Your task to perform on an android device: open app "Duolingo: language lessons" Image 0: 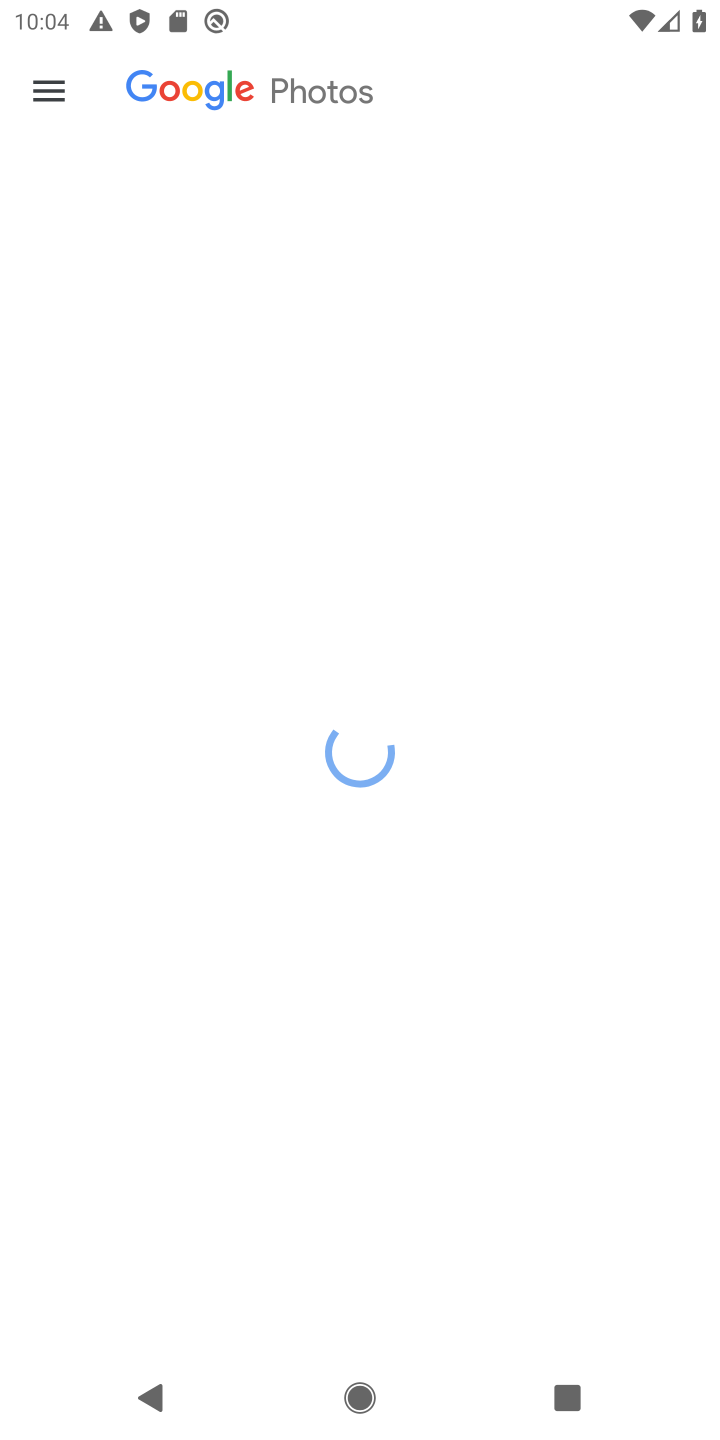
Step 0: press home button
Your task to perform on an android device: open app "Duolingo: language lessons" Image 1: 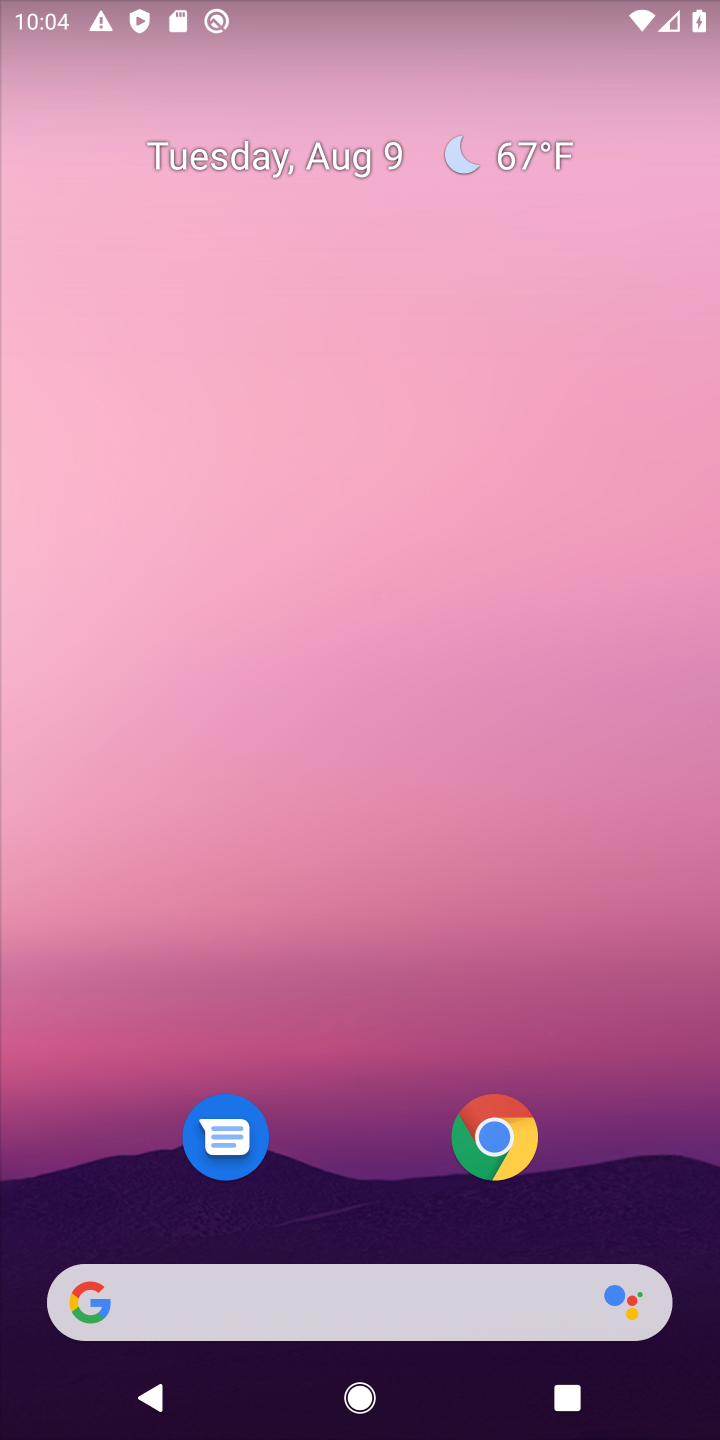
Step 1: drag from (667, 1124) to (479, 85)
Your task to perform on an android device: open app "Duolingo: language lessons" Image 2: 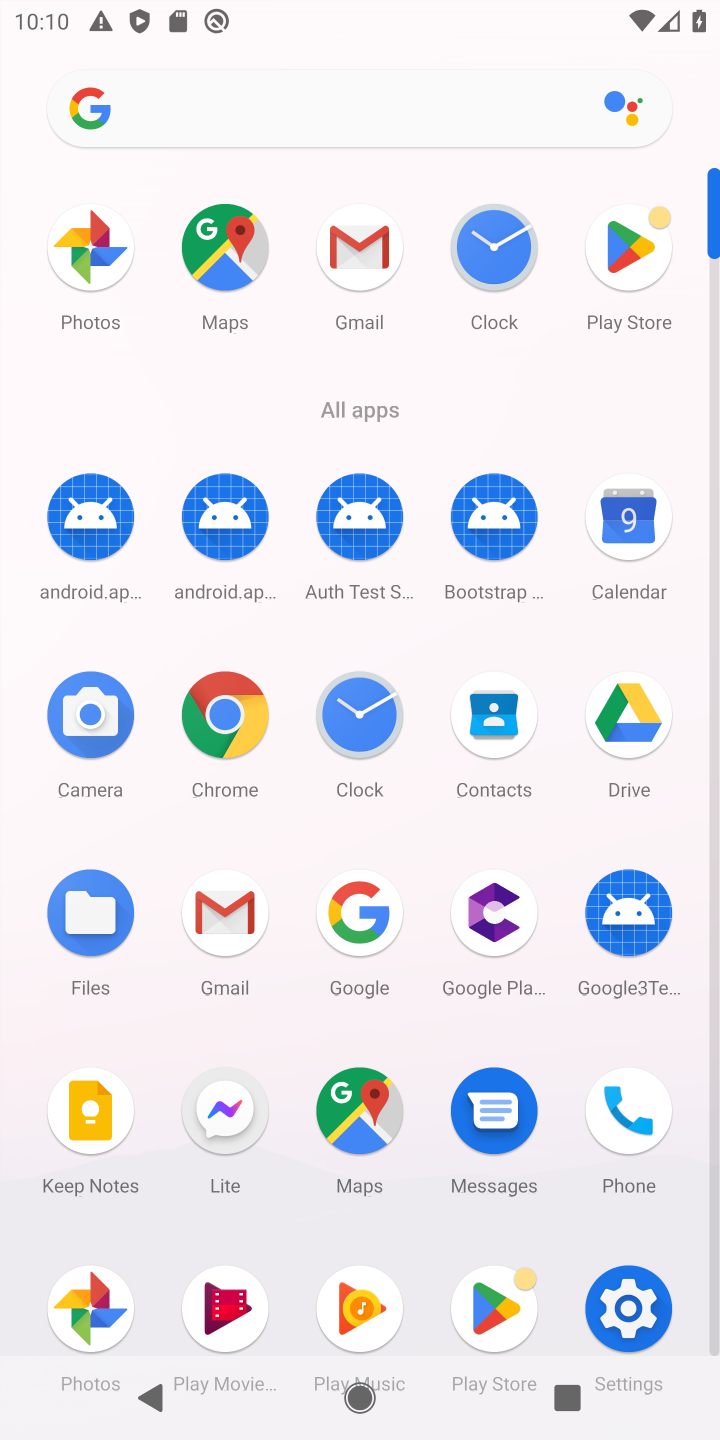
Step 2: click (612, 286)
Your task to perform on an android device: open app "Duolingo: language lessons" Image 3: 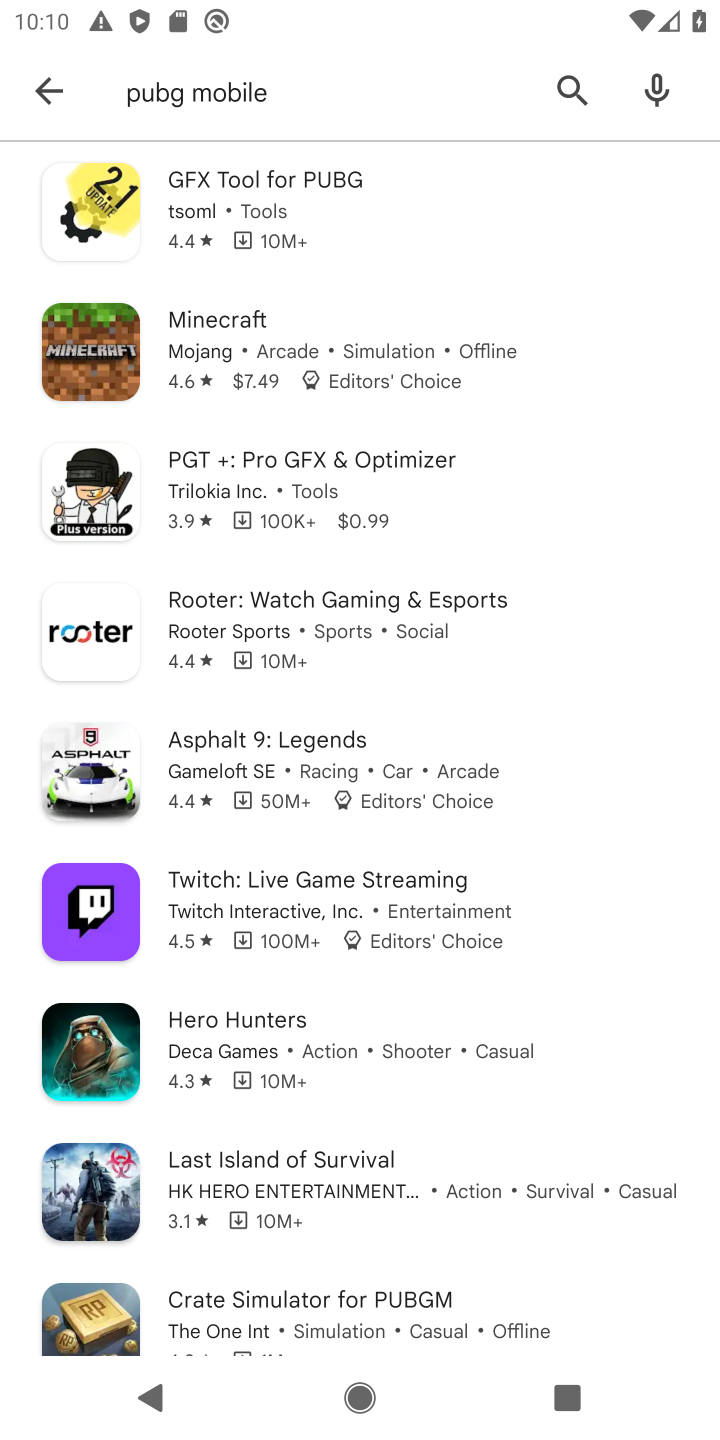
Step 3: press back button
Your task to perform on an android device: open app "Duolingo: language lessons" Image 4: 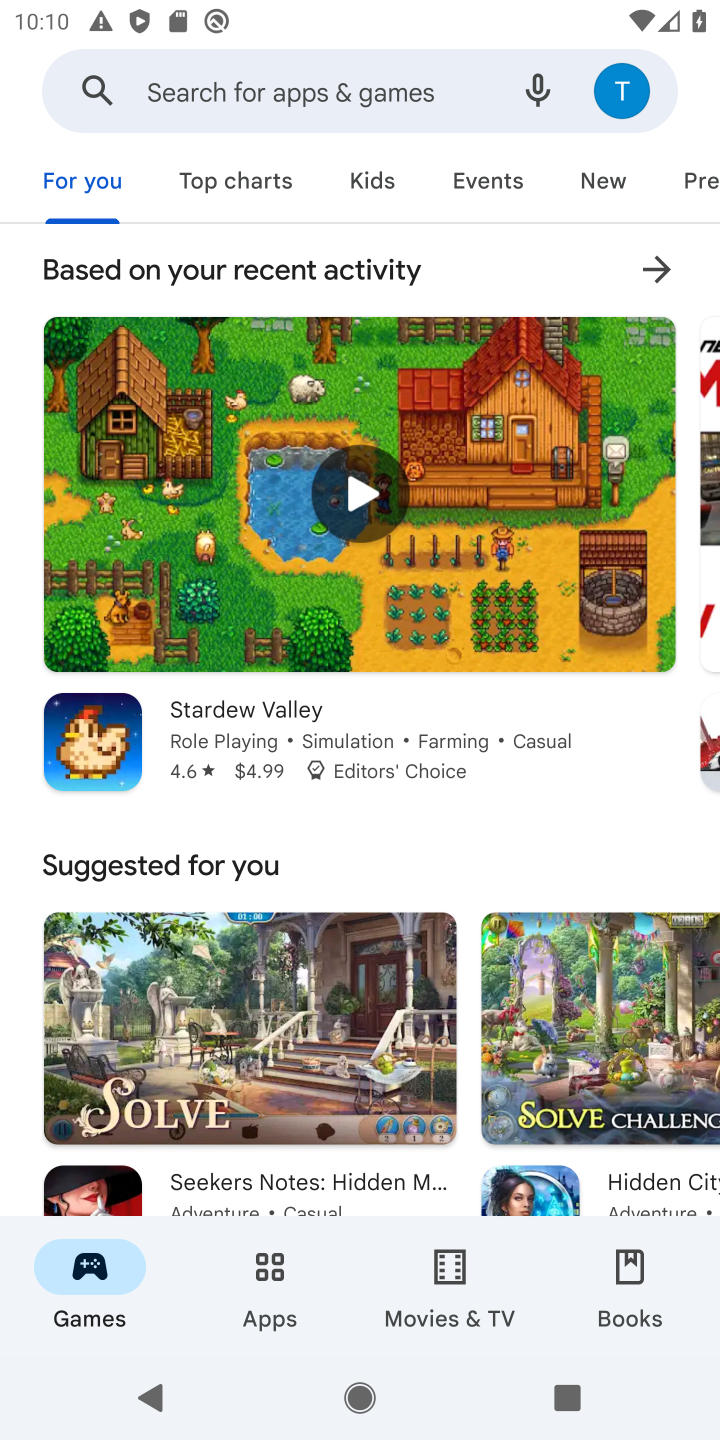
Step 4: click (236, 106)
Your task to perform on an android device: open app "Duolingo: language lessons" Image 5: 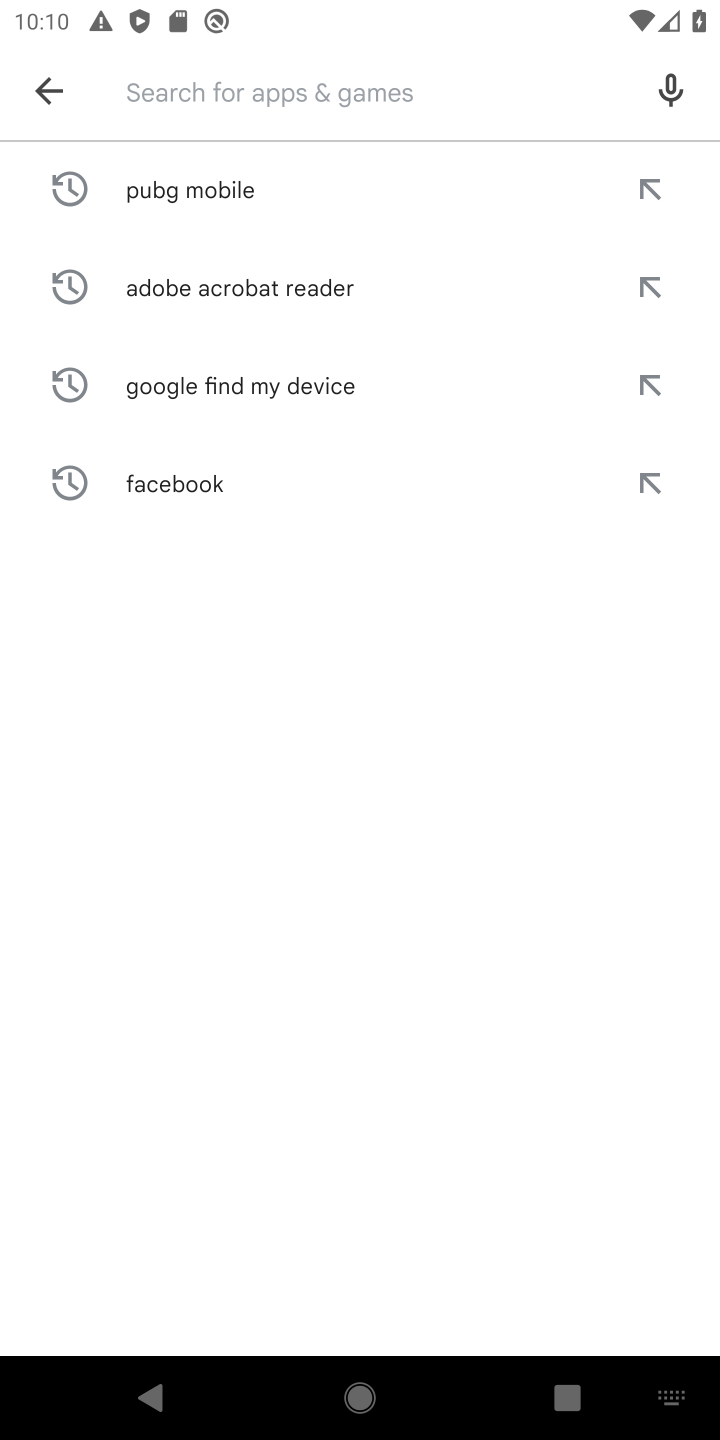
Step 5: type "Duolingo: language lessons"
Your task to perform on an android device: open app "Duolingo: language lessons" Image 6: 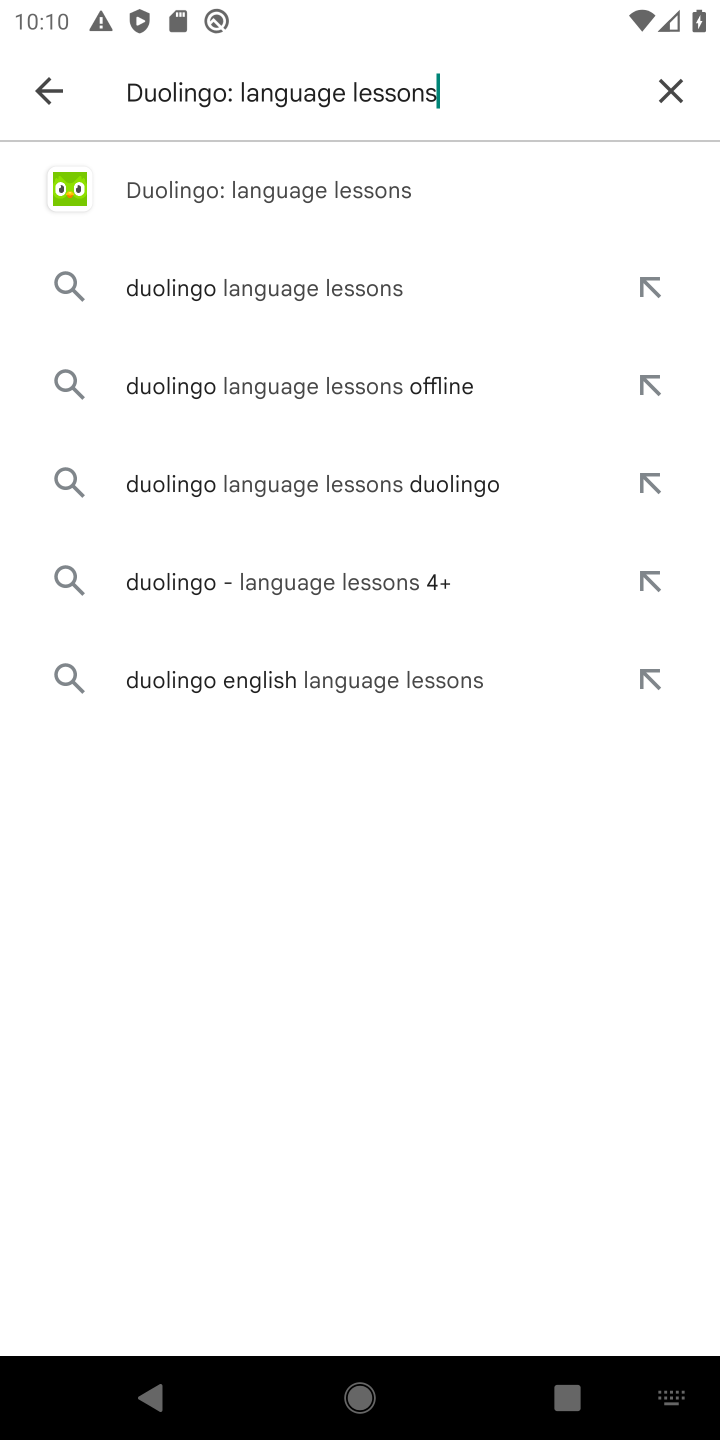
Step 6: click (178, 211)
Your task to perform on an android device: open app "Duolingo: language lessons" Image 7: 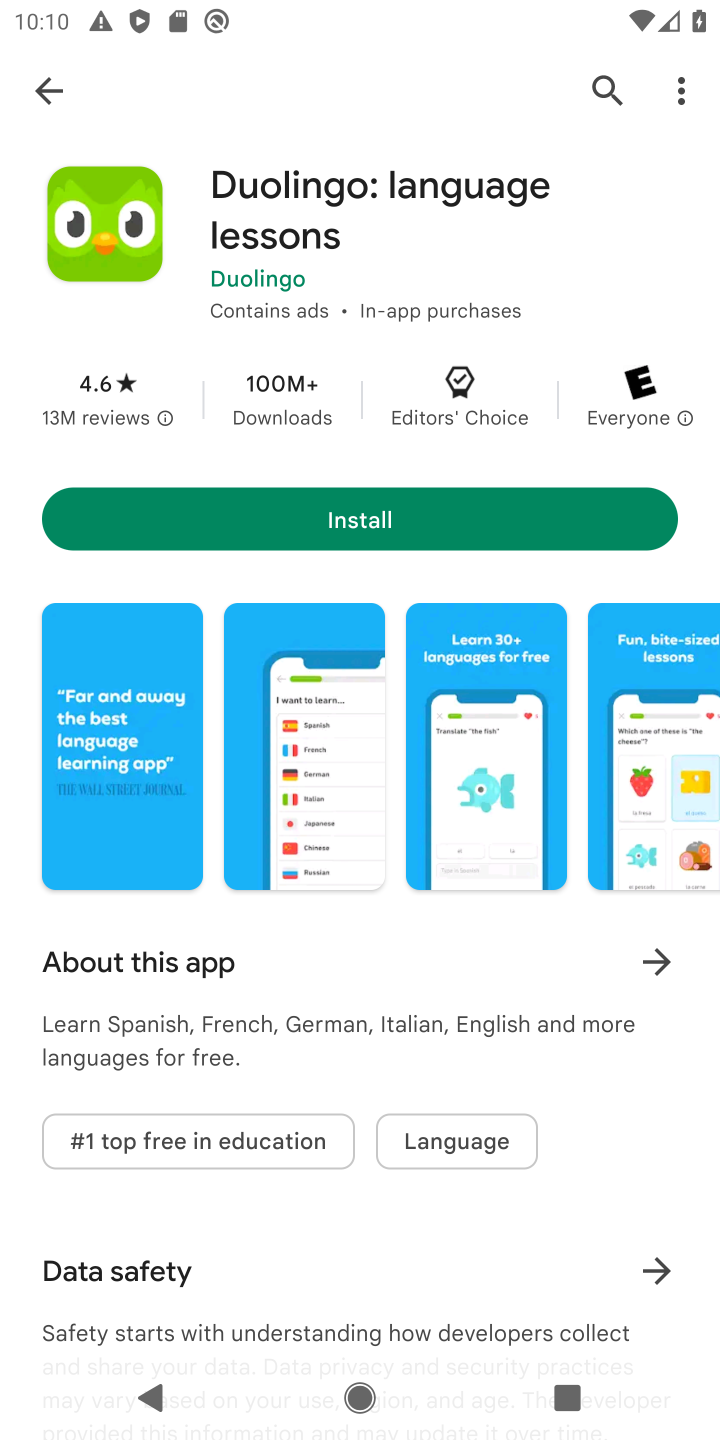
Step 7: task complete